Your task to perform on an android device: open a bookmark in the chrome app Image 0: 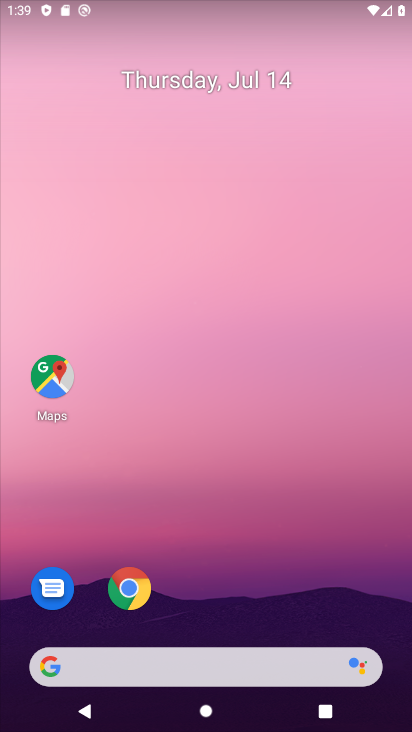
Step 0: click (144, 599)
Your task to perform on an android device: open a bookmark in the chrome app Image 1: 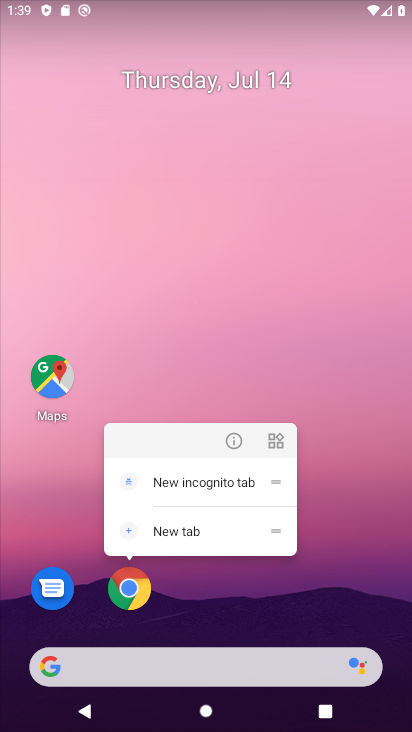
Step 1: click (144, 600)
Your task to perform on an android device: open a bookmark in the chrome app Image 2: 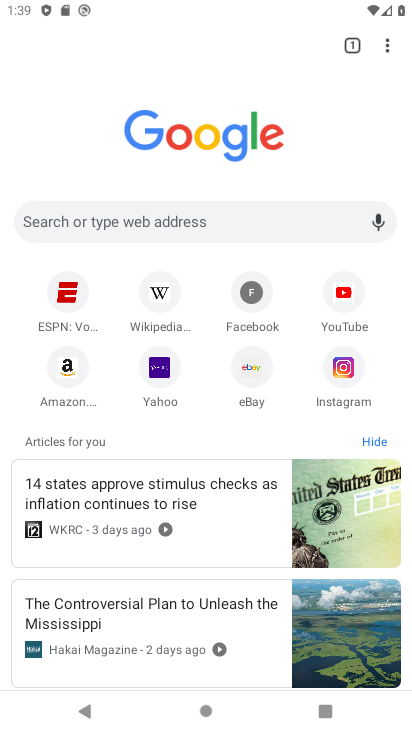
Step 2: click (391, 36)
Your task to perform on an android device: open a bookmark in the chrome app Image 3: 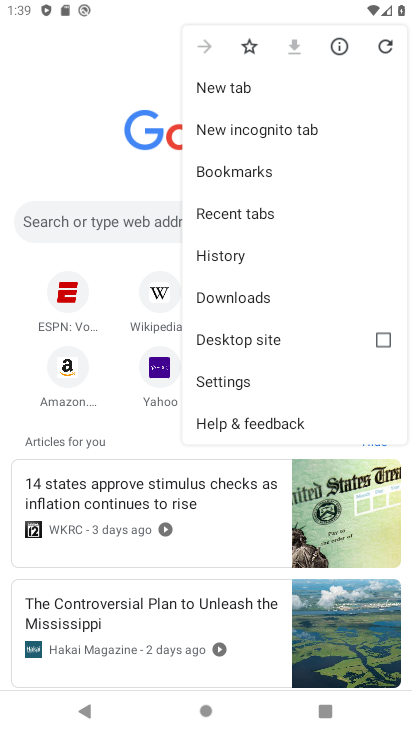
Step 3: click (275, 170)
Your task to perform on an android device: open a bookmark in the chrome app Image 4: 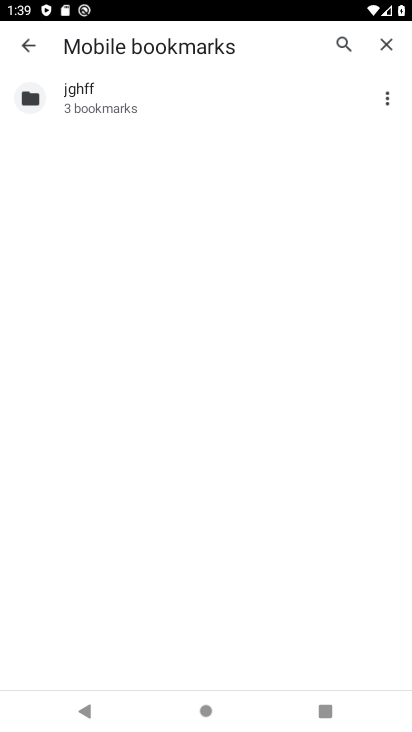
Step 4: click (256, 93)
Your task to perform on an android device: open a bookmark in the chrome app Image 5: 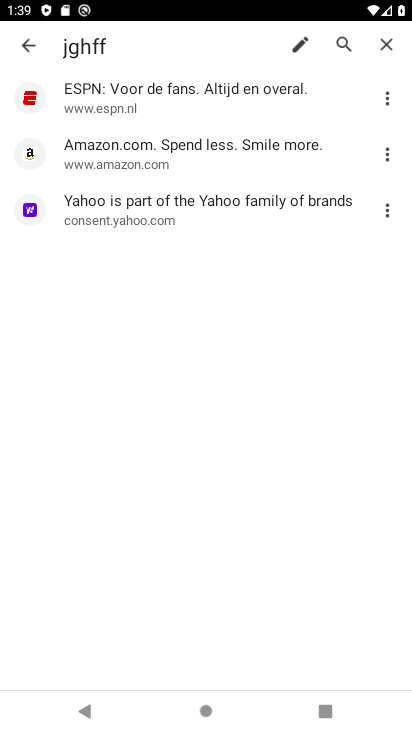
Step 5: click (271, 141)
Your task to perform on an android device: open a bookmark in the chrome app Image 6: 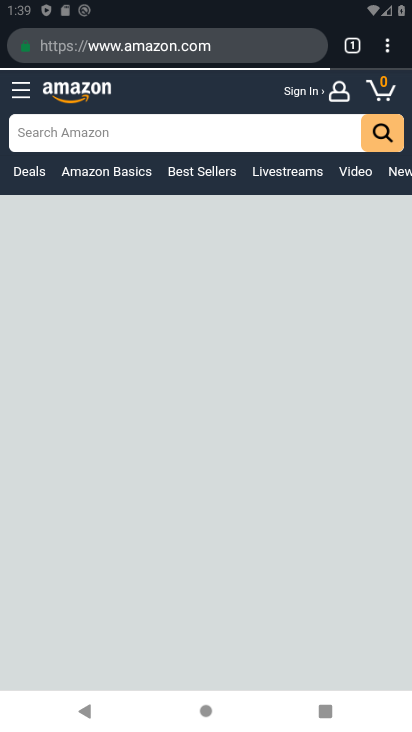
Step 6: task complete